Your task to perform on an android device: turn off picture-in-picture Image 0: 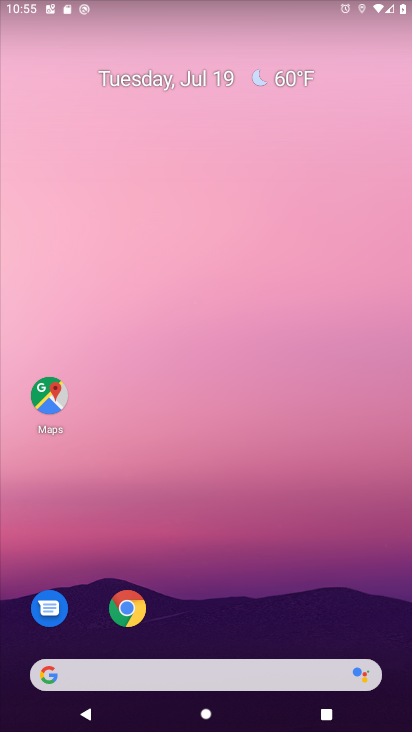
Step 0: drag from (240, 619) to (213, 146)
Your task to perform on an android device: turn off picture-in-picture Image 1: 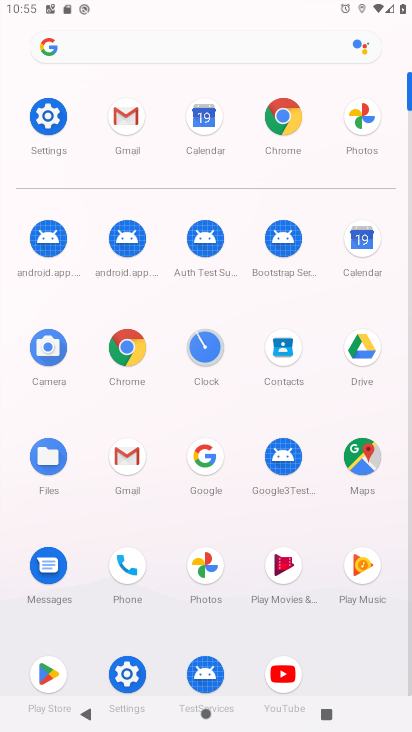
Step 1: click (48, 106)
Your task to perform on an android device: turn off picture-in-picture Image 2: 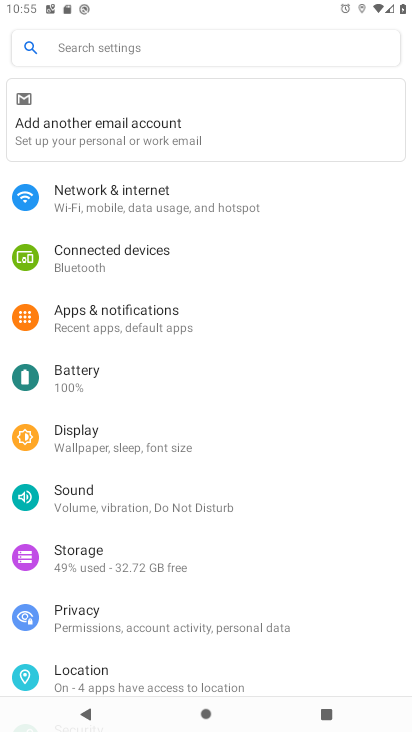
Step 2: click (123, 306)
Your task to perform on an android device: turn off picture-in-picture Image 3: 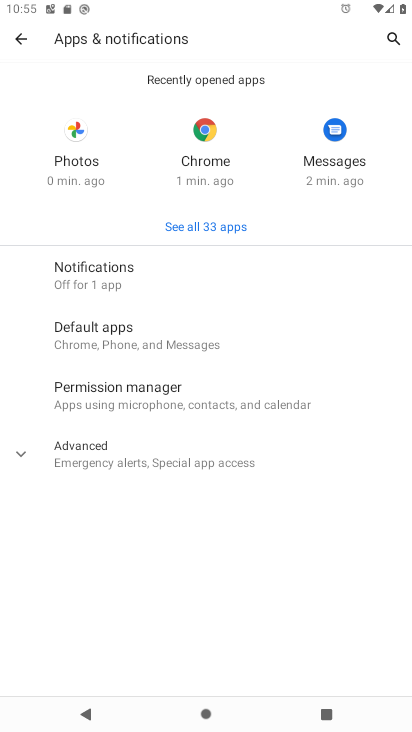
Step 3: click (106, 285)
Your task to perform on an android device: turn off picture-in-picture Image 4: 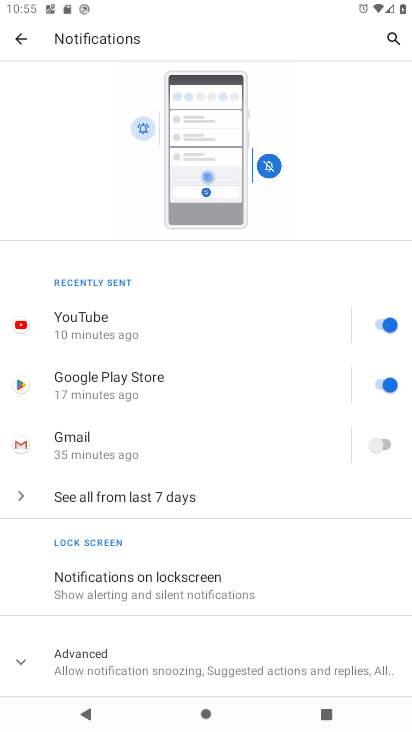
Step 4: click (158, 653)
Your task to perform on an android device: turn off picture-in-picture Image 5: 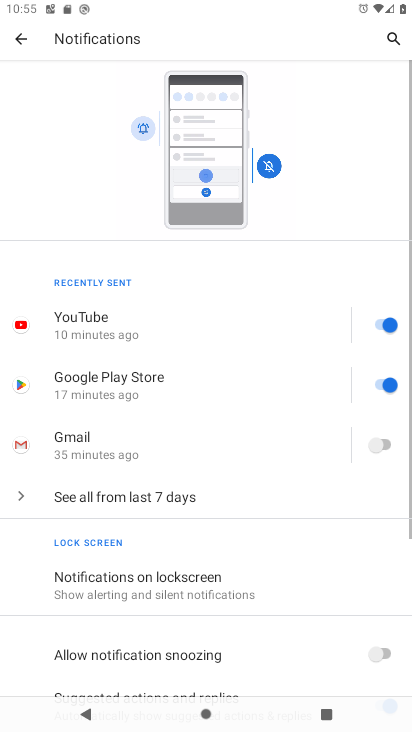
Step 5: task complete